Your task to perform on an android device: Add razer nari to the cart on newegg Image 0: 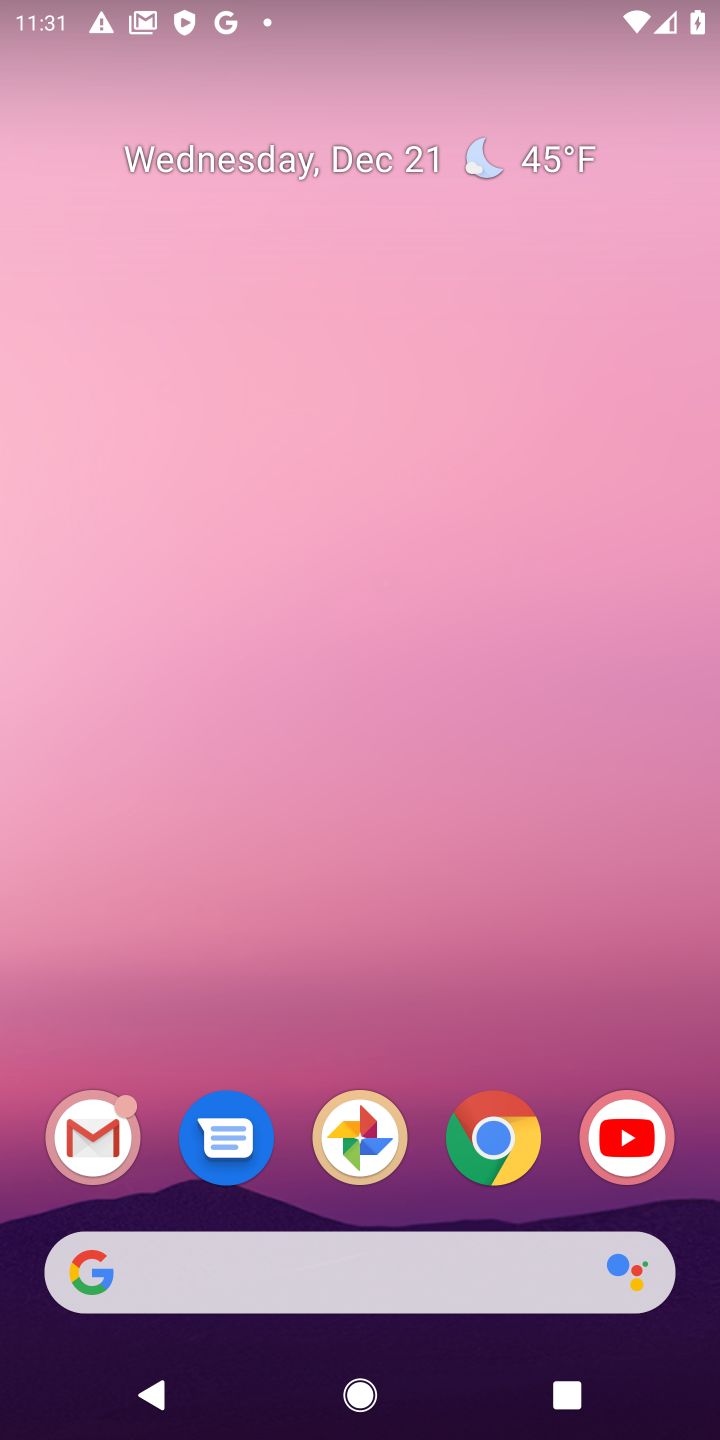
Step 0: click (497, 1155)
Your task to perform on an android device: Add razer nari to the cart on newegg Image 1: 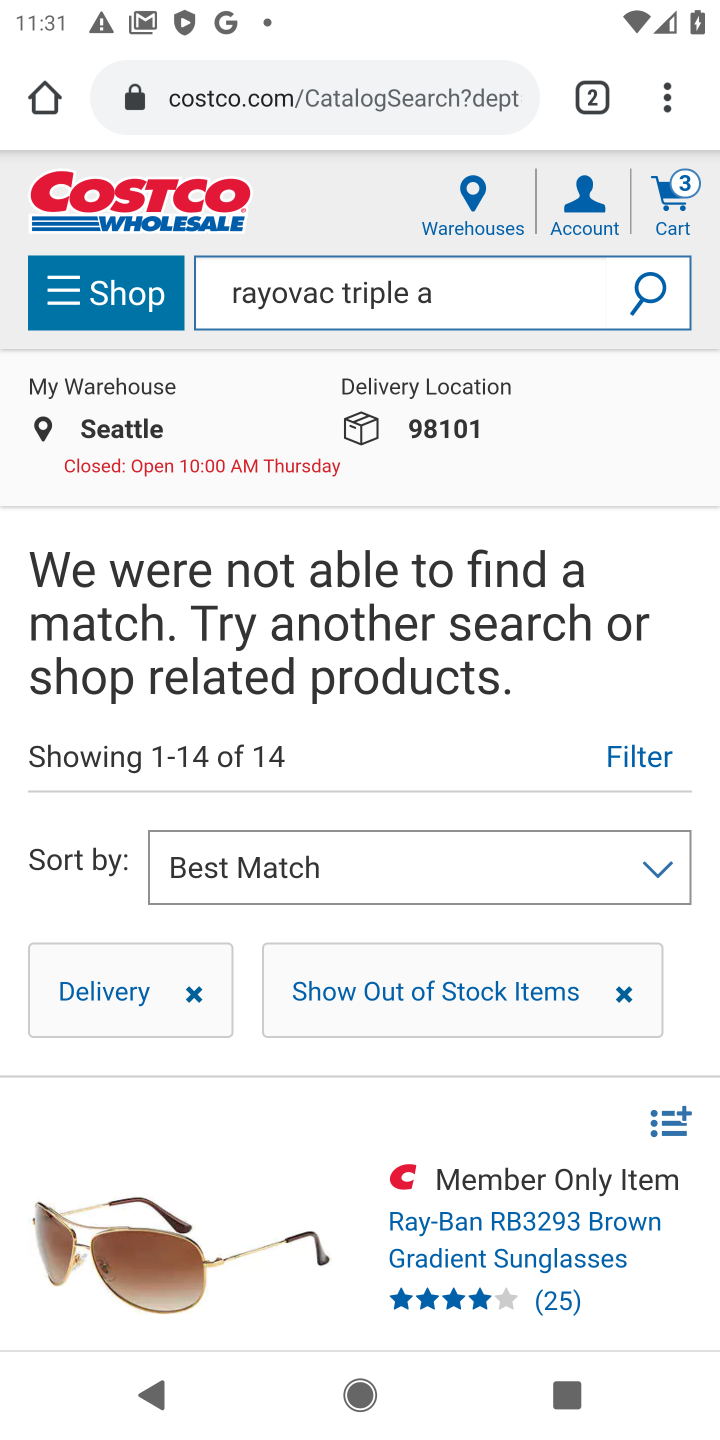
Step 1: click (251, 101)
Your task to perform on an android device: Add razer nari to the cart on newegg Image 2: 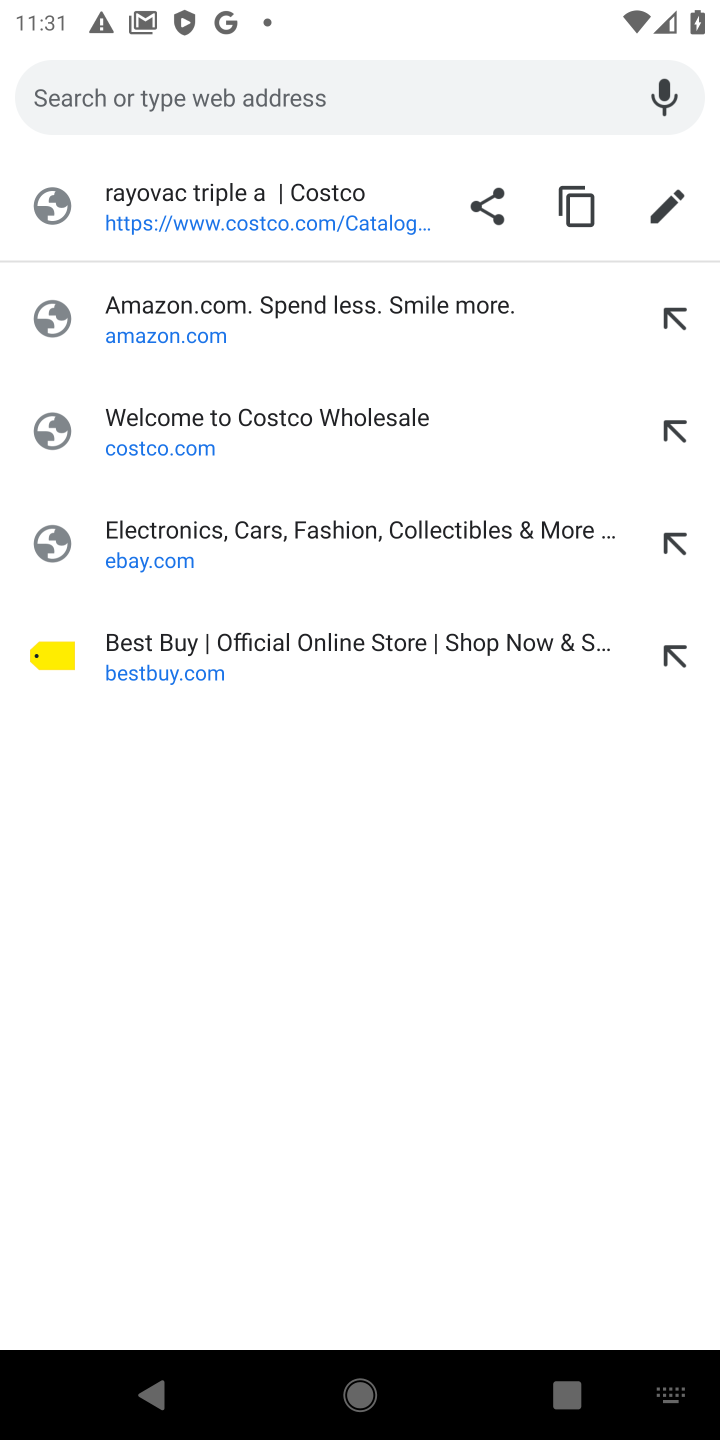
Step 2: type "newegg.com"
Your task to perform on an android device: Add razer nari to the cart on newegg Image 3: 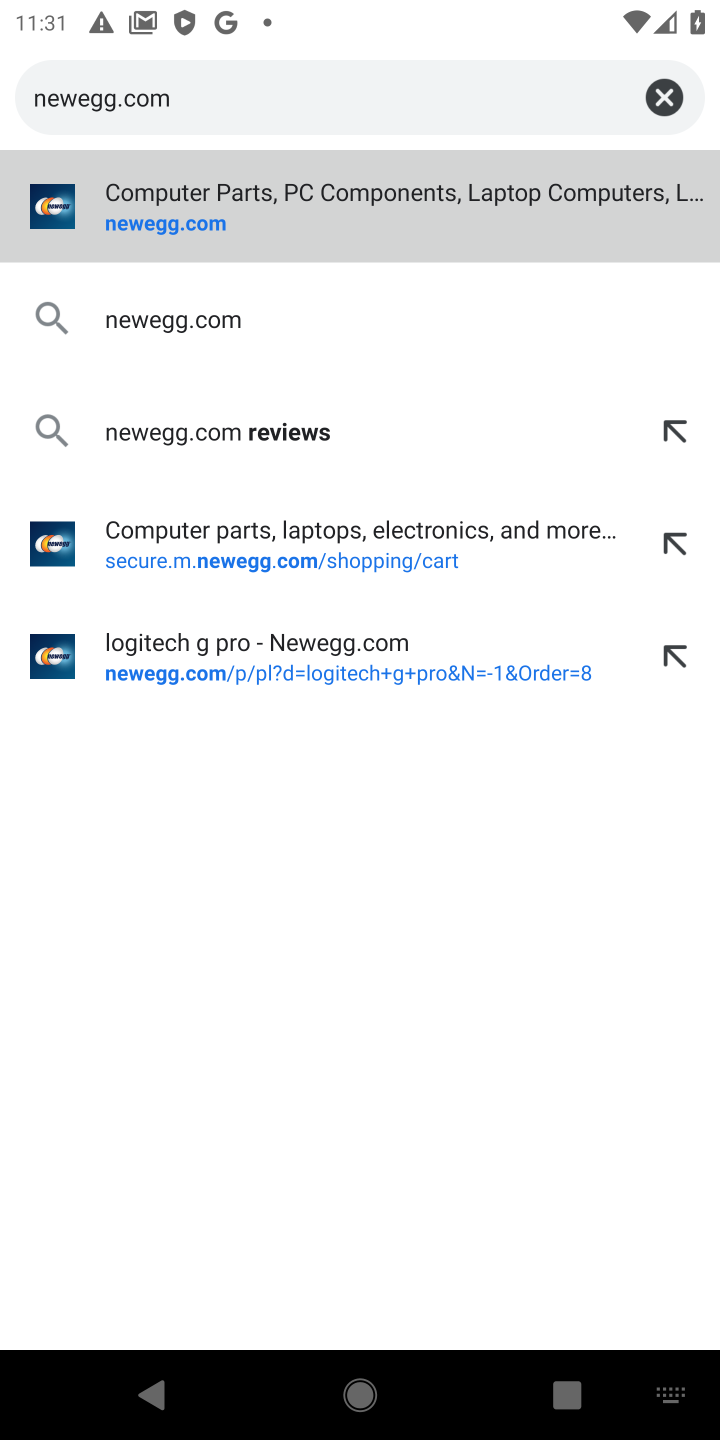
Step 3: click (149, 208)
Your task to perform on an android device: Add razer nari to the cart on newegg Image 4: 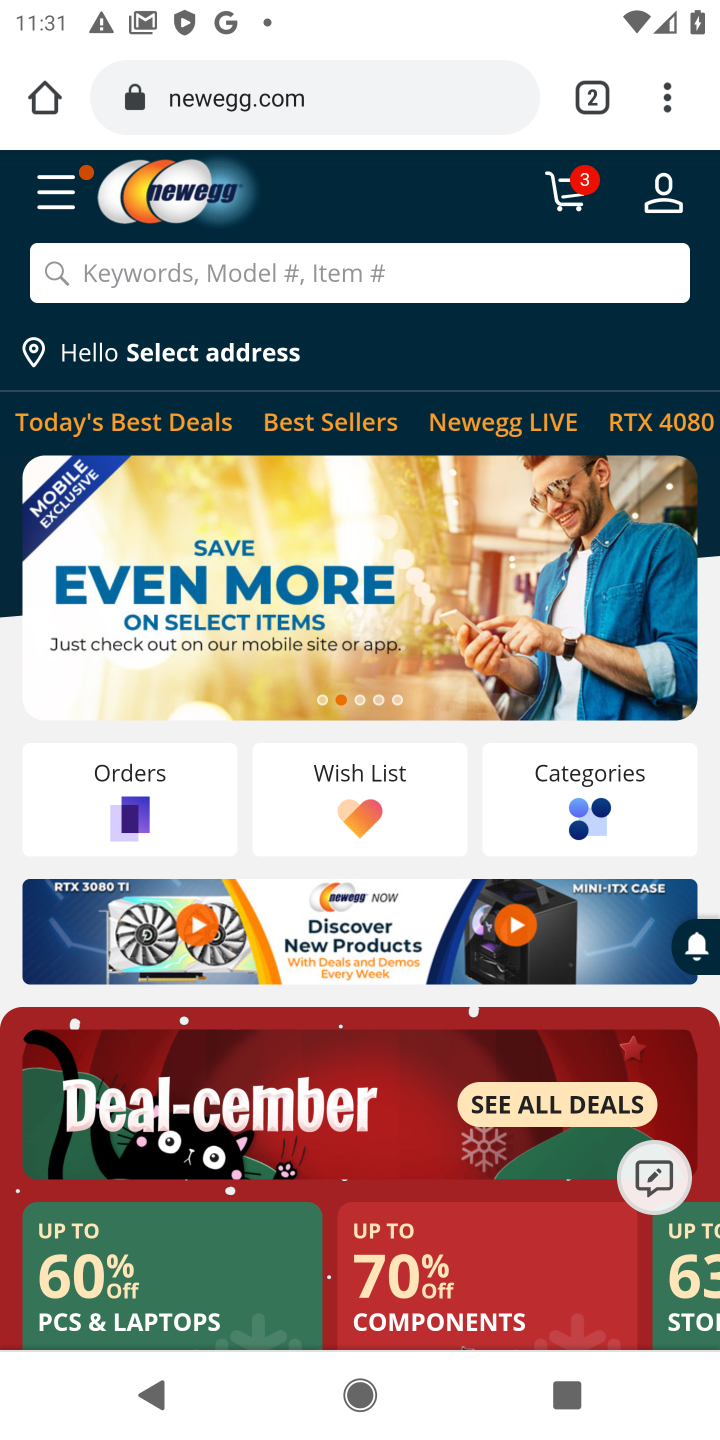
Step 4: click (183, 287)
Your task to perform on an android device: Add razer nari to the cart on newegg Image 5: 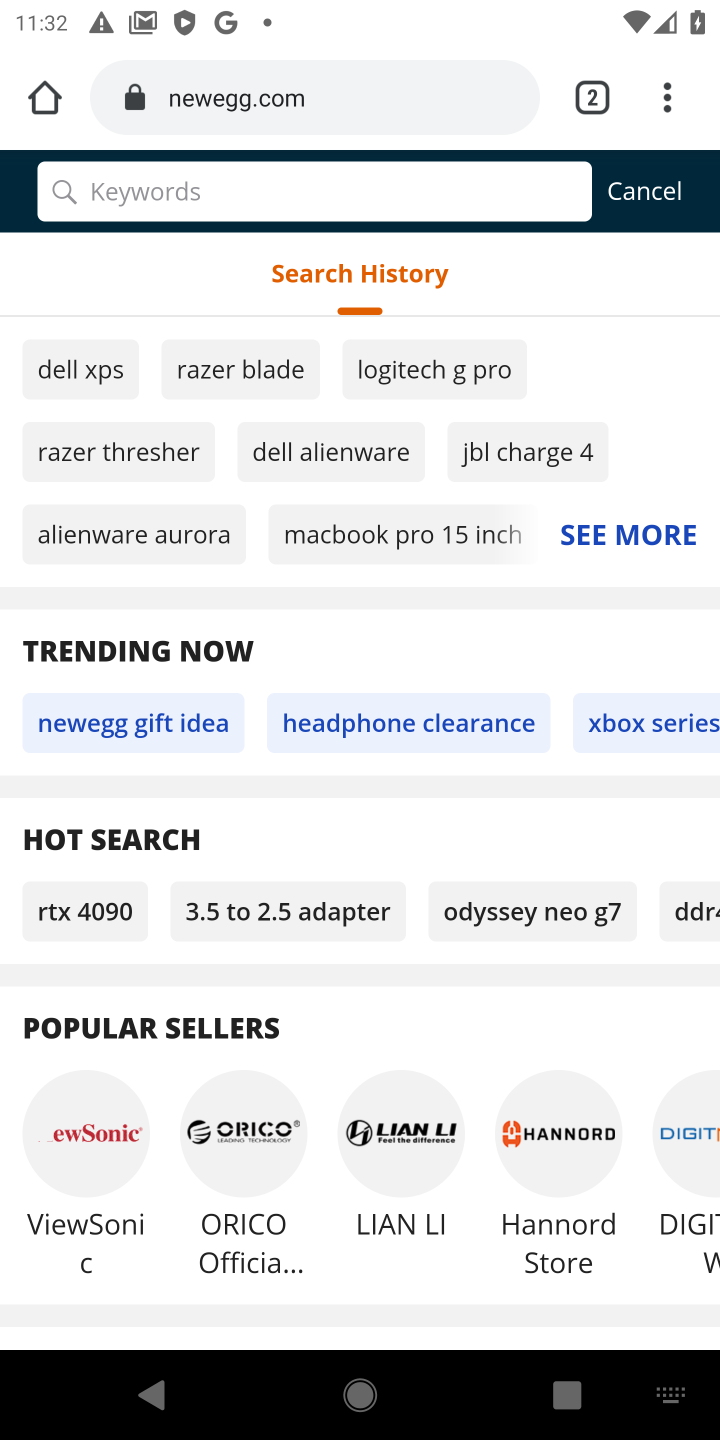
Step 5: type "razer nari "
Your task to perform on an android device: Add razer nari to the cart on newegg Image 6: 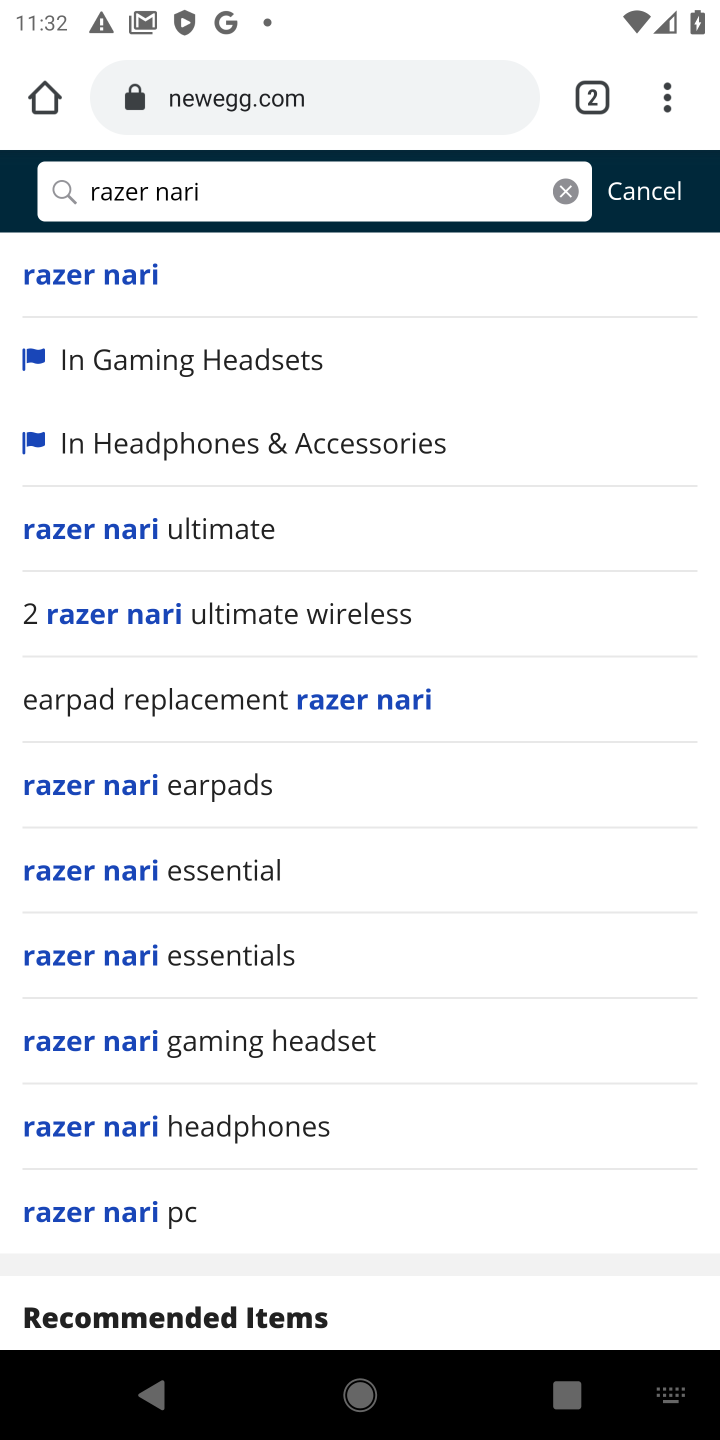
Step 6: click (85, 268)
Your task to perform on an android device: Add razer nari to the cart on newegg Image 7: 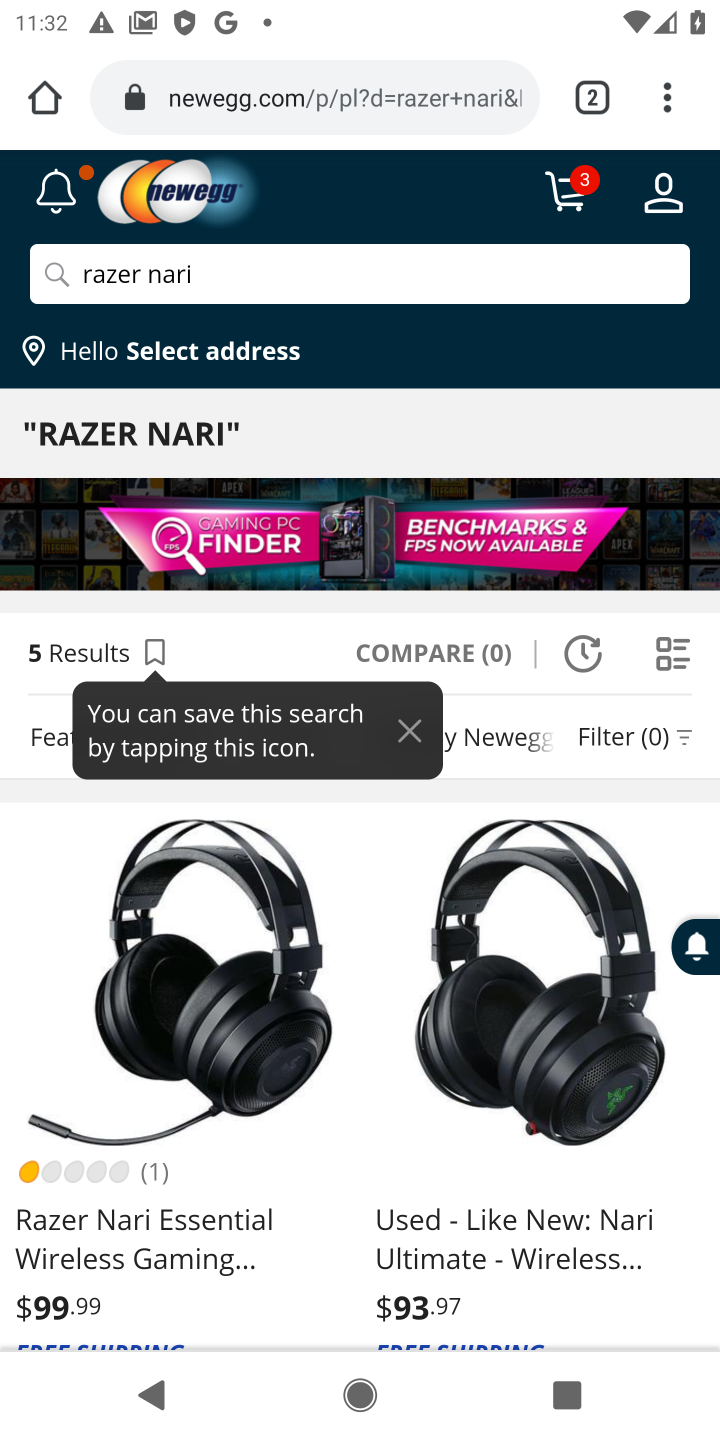
Step 7: drag from (133, 1074) to (120, 610)
Your task to perform on an android device: Add razer nari to the cart on newegg Image 8: 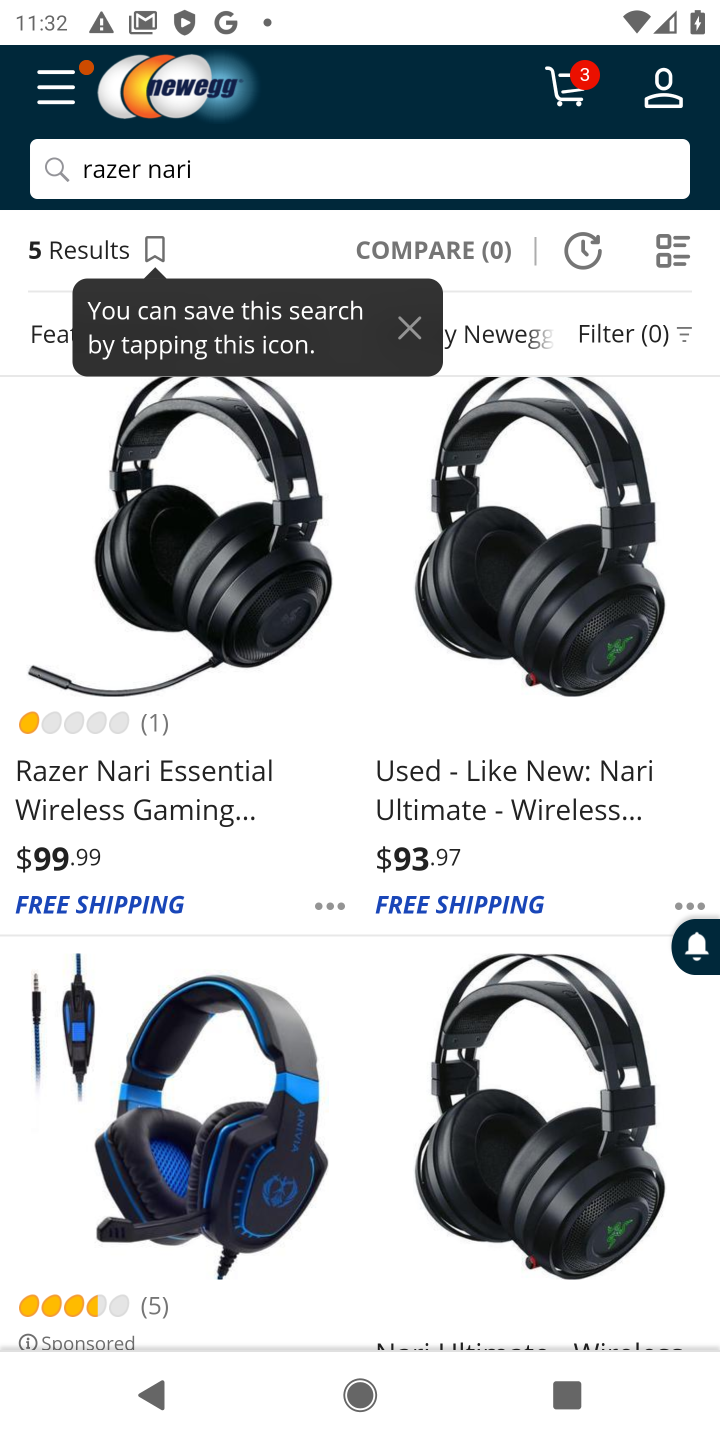
Step 8: click (84, 775)
Your task to perform on an android device: Add razer nari to the cart on newegg Image 9: 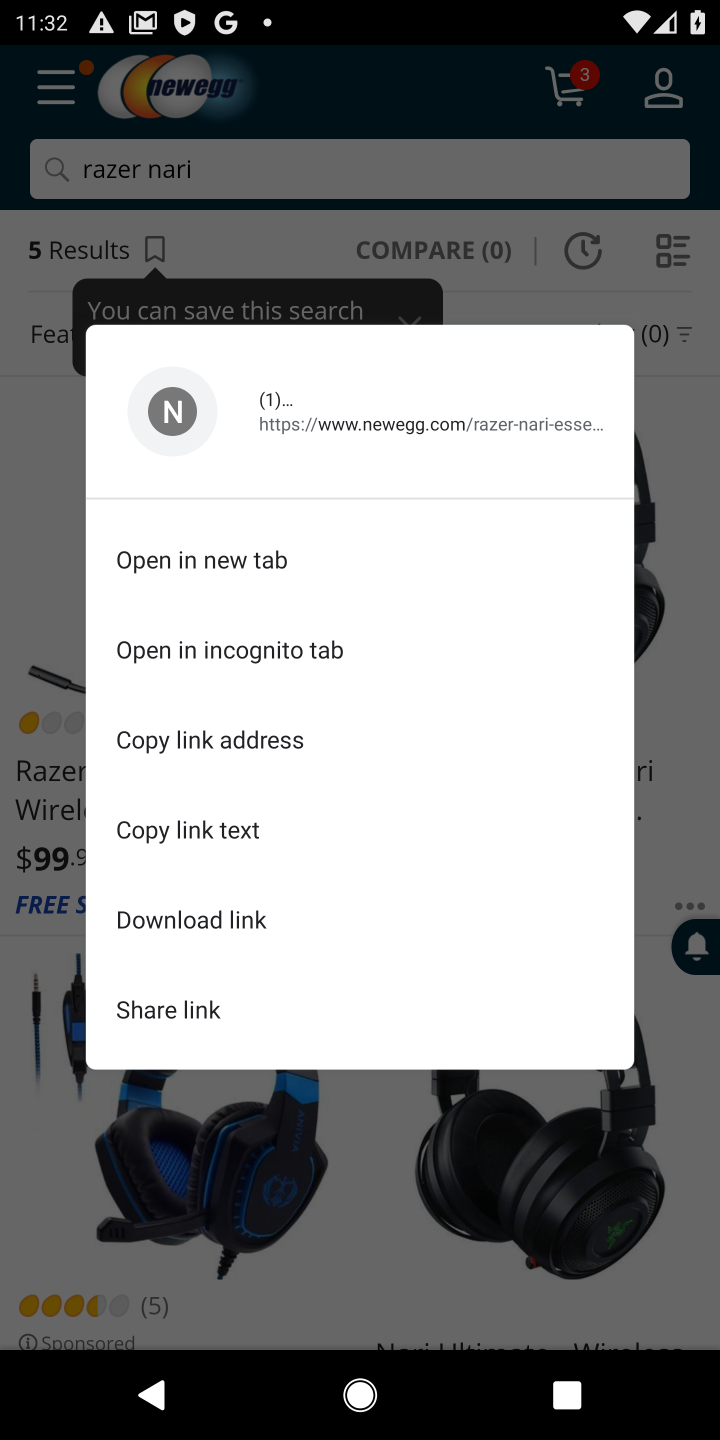
Step 9: click (47, 801)
Your task to perform on an android device: Add razer nari to the cart on newegg Image 10: 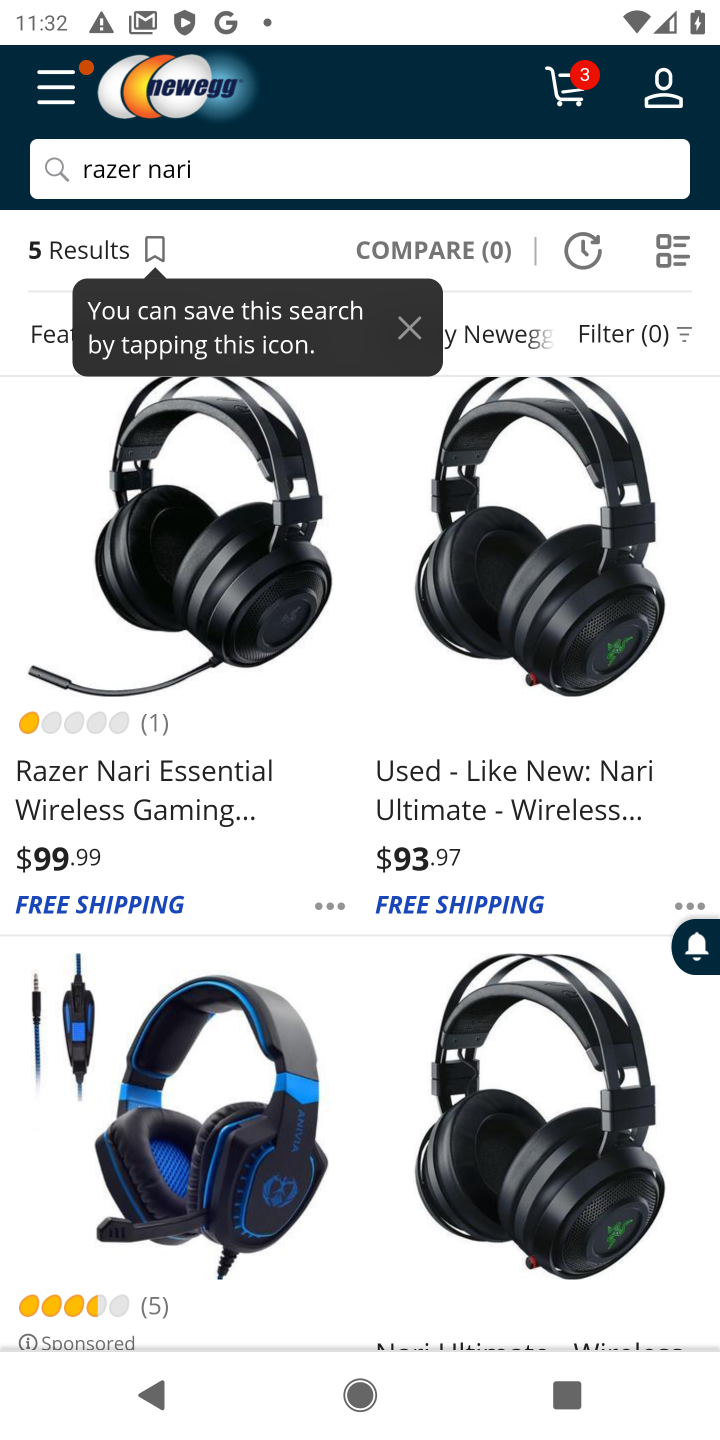
Step 10: click (78, 808)
Your task to perform on an android device: Add razer nari to the cart on newegg Image 11: 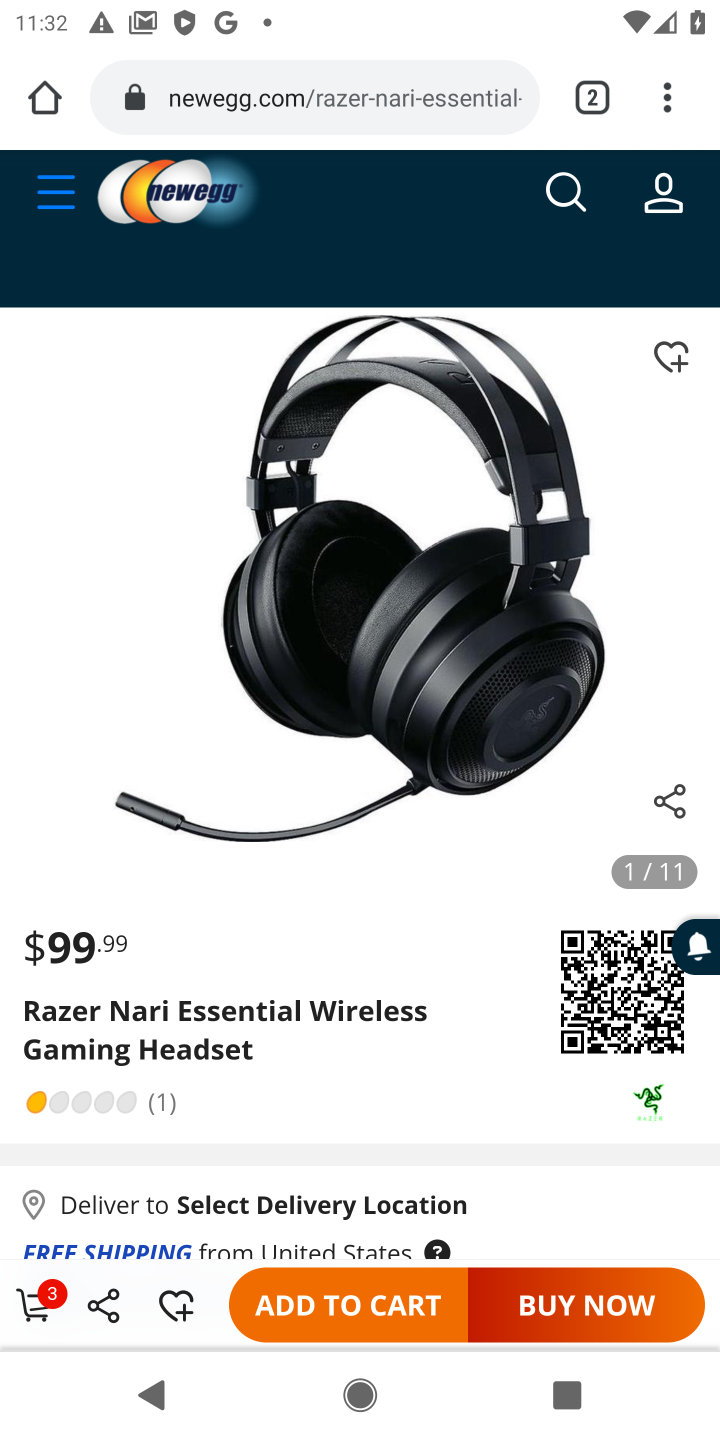
Step 11: click (321, 1304)
Your task to perform on an android device: Add razer nari to the cart on newegg Image 12: 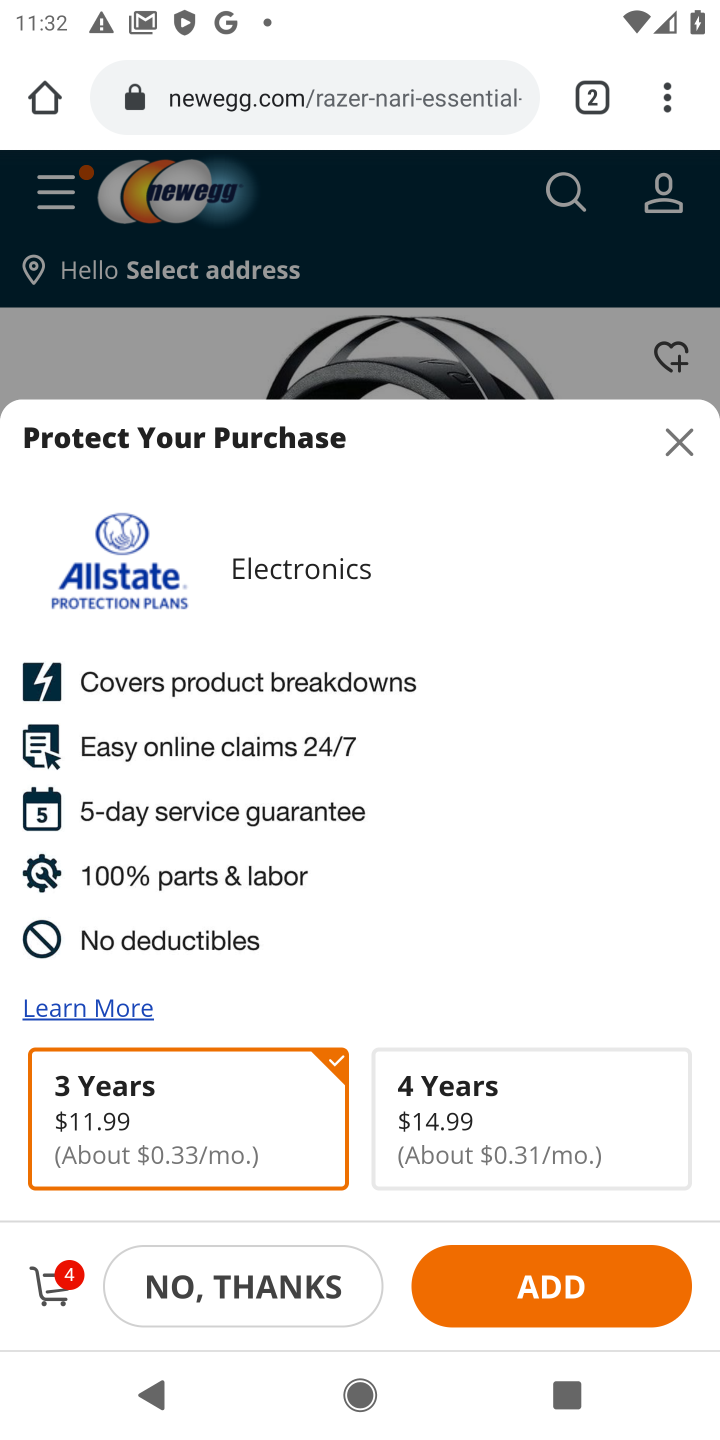
Step 12: task complete